Your task to perform on an android device: Open accessibility settings Image 0: 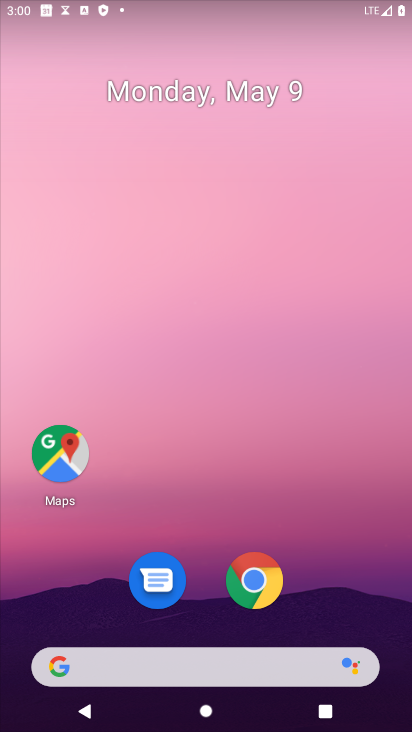
Step 0: drag from (332, 494) to (273, 99)
Your task to perform on an android device: Open accessibility settings Image 1: 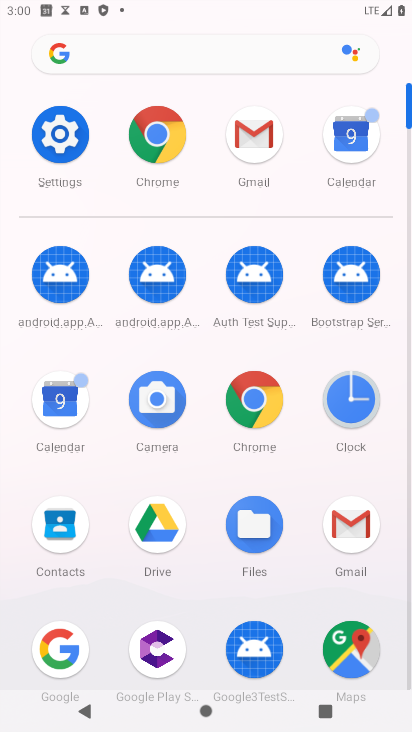
Step 1: click (38, 111)
Your task to perform on an android device: Open accessibility settings Image 2: 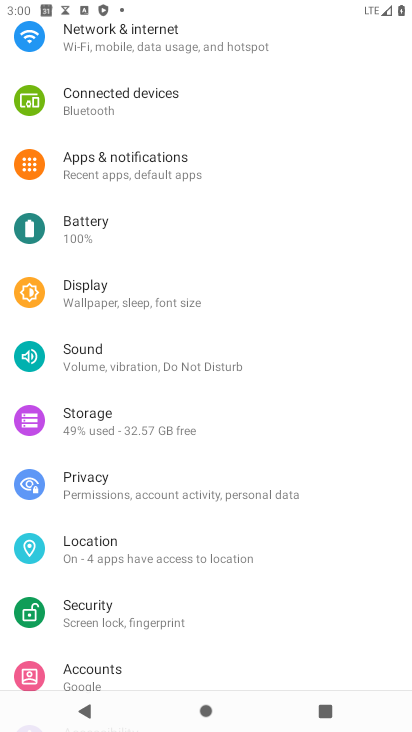
Step 2: drag from (179, 617) to (174, 360)
Your task to perform on an android device: Open accessibility settings Image 3: 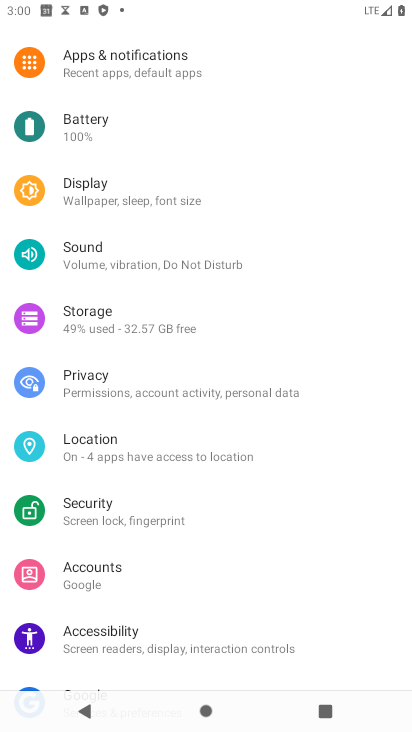
Step 3: click (147, 626)
Your task to perform on an android device: Open accessibility settings Image 4: 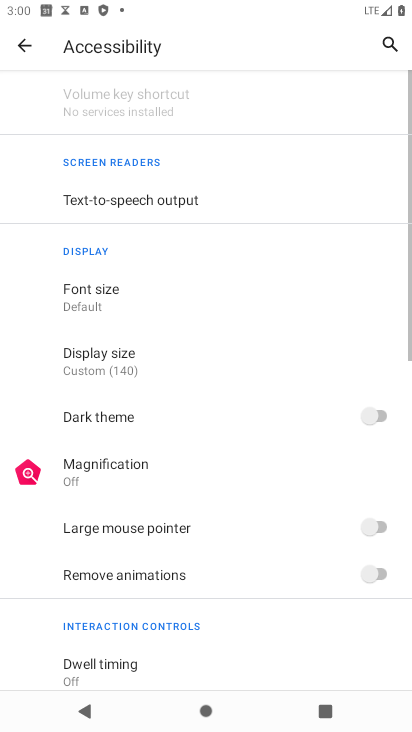
Step 4: task complete